Your task to perform on an android device: add a contact in the contacts app Image 0: 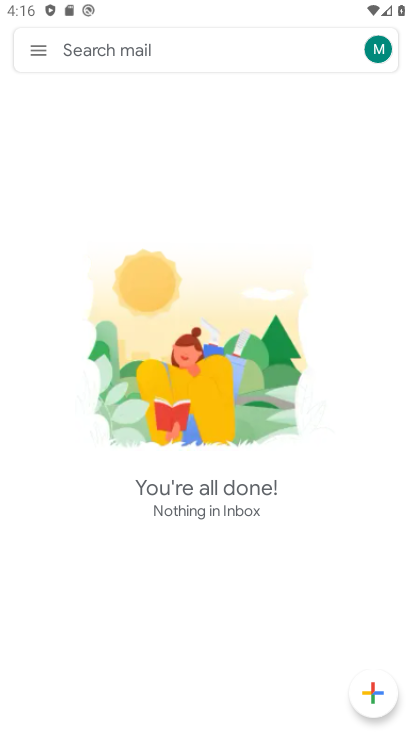
Step 0: press home button
Your task to perform on an android device: add a contact in the contacts app Image 1: 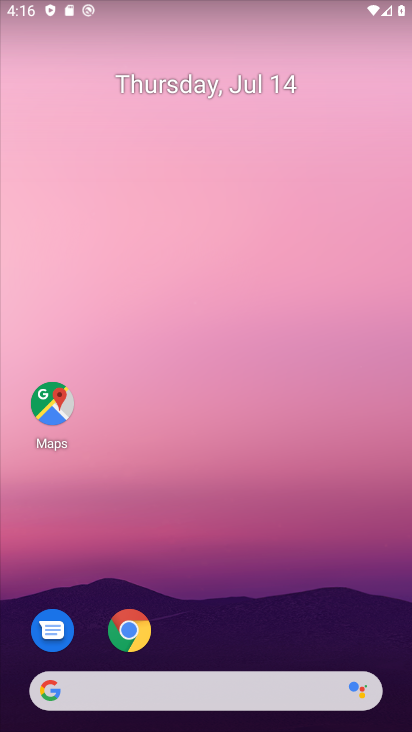
Step 1: click (186, 650)
Your task to perform on an android device: add a contact in the contacts app Image 2: 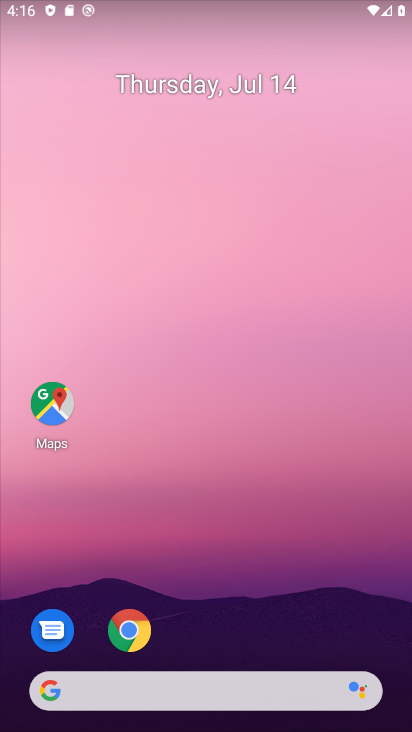
Step 2: drag from (177, 492) to (292, 67)
Your task to perform on an android device: add a contact in the contacts app Image 3: 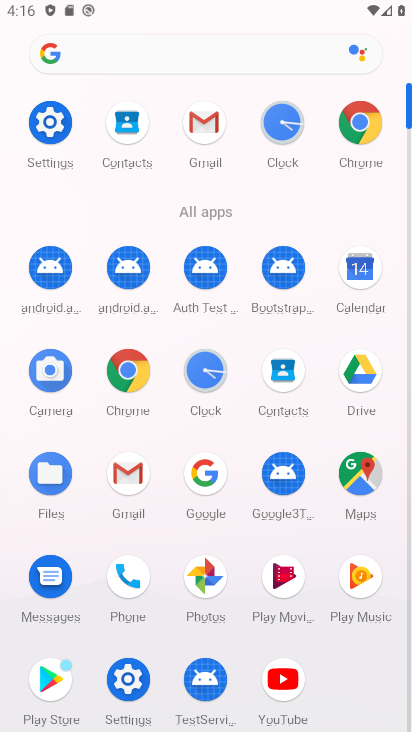
Step 3: click (270, 376)
Your task to perform on an android device: add a contact in the contacts app Image 4: 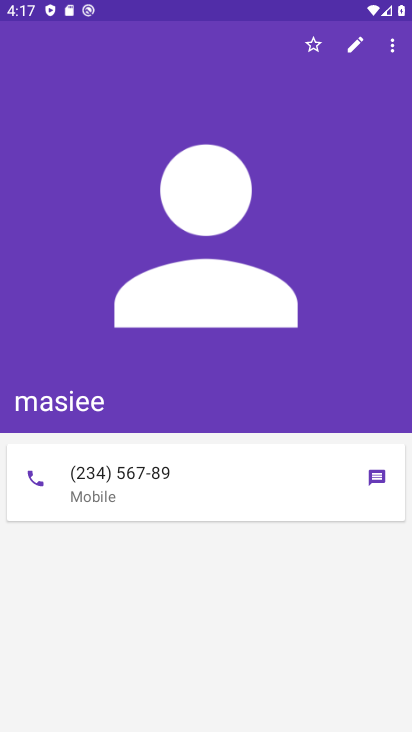
Step 4: press back button
Your task to perform on an android device: add a contact in the contacts app Image 5: 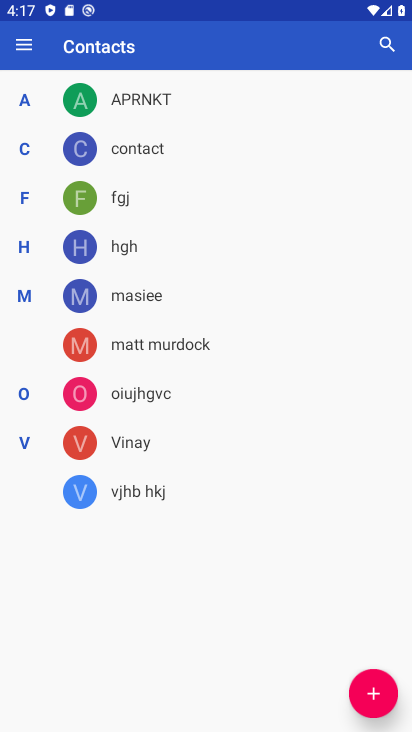
Step 5: click (374, 686)
Your task to perform on an android device: add a contact in the contacts app Image 6: 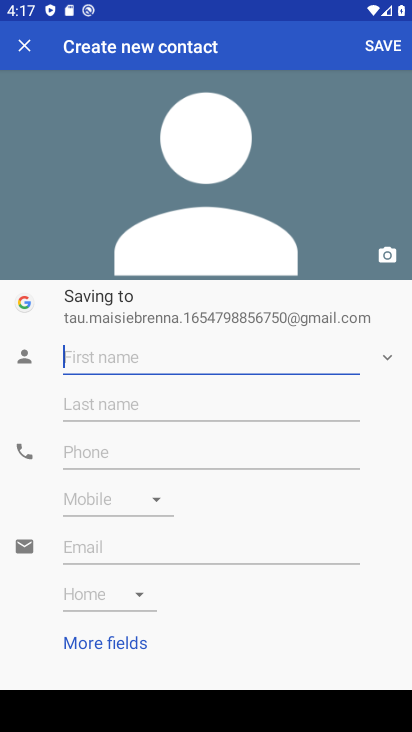
Step 6: type "kanjar "
Your task to perform on an android device: add a contact in the contacts app Image 7: 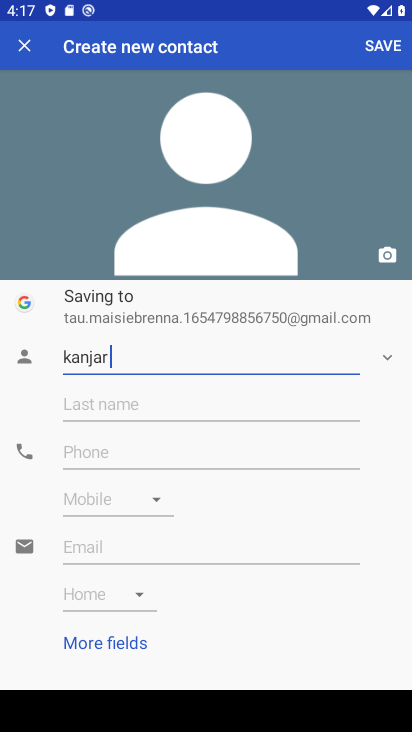
Step 7: click (309, 397)
Your task to perform on an android device: add a contact in the contacts app Image 8: 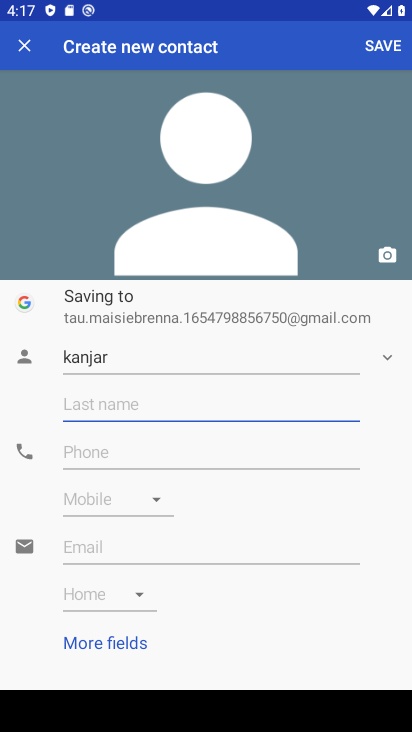
Step 8: type "task"
Your task to perform on an android device: add a contact in the contacts app Image 9: 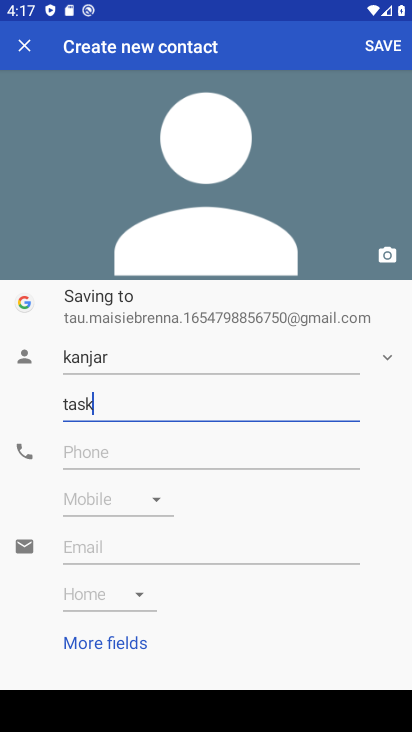
Step 9: click (124, 437)
Your task to perform on an android device: add a contact in the contacts app Image 10: 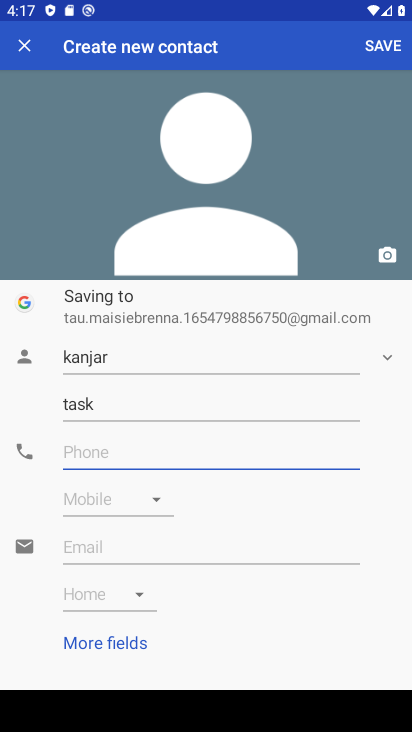
Step 10: type "234567654"
Your task to perform on an android device: add a contact in the contacts app Image 11: 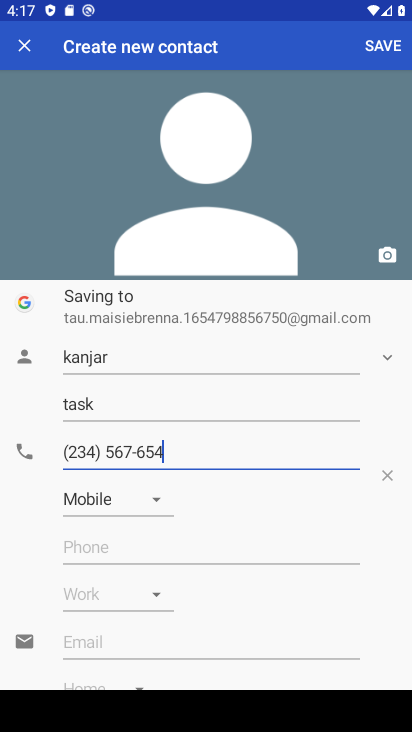
Step 11: click (394, 43)
Your task to perform on an android device: add a contact in the contacts app Image 12: 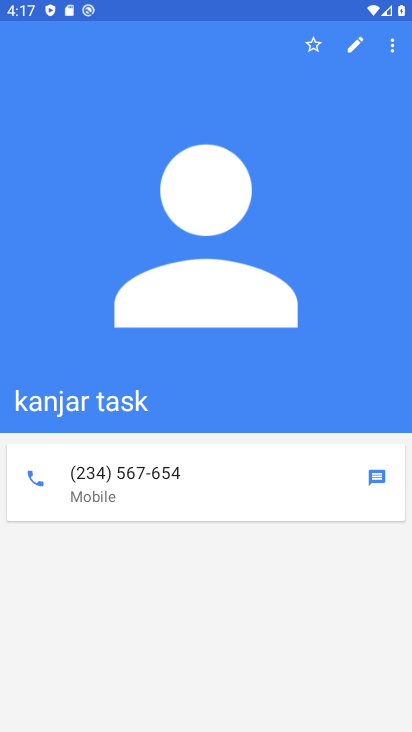
Step 12: task complete